Your task to perform on an android device: choose inbox layout in the gmail app Image 0: 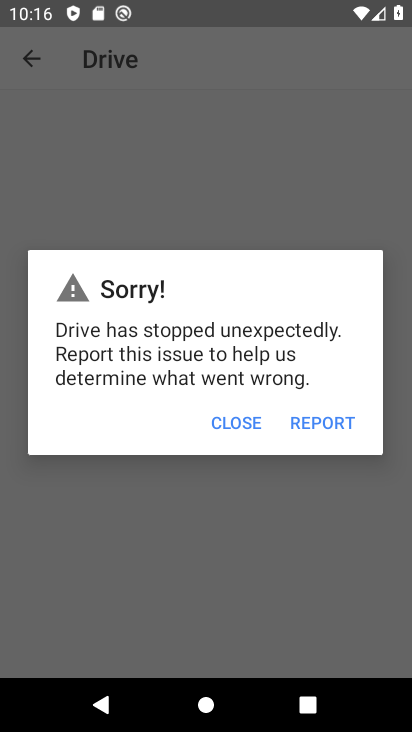
Step 0: press home button
Your task to perform on an android device: choose inbox layout in the gmail app Image 1: 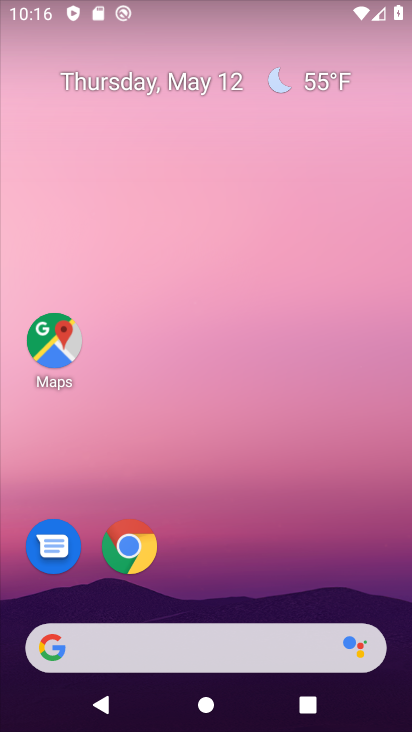
Step 1: drag from (179, 552) to (221, 105)
Your task to perform on an android device: choose inbox layout in the gmail app Image 2: 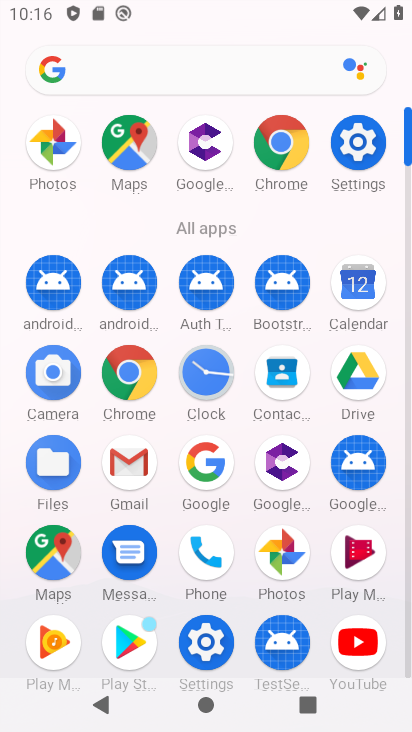
Step 2: click (129, 468)
Your task to perform on an android device: choose inbox layout in the gmail app Image 3: 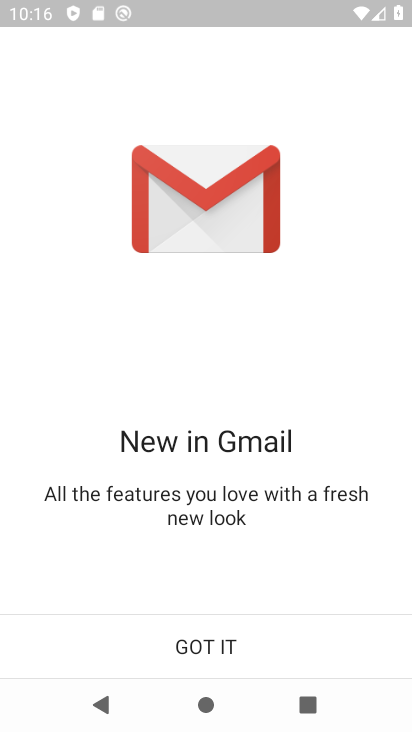
Step 3: click (209, 654)
Your task to perform on an android device: choose inbox layout in the gmail app Image 4: 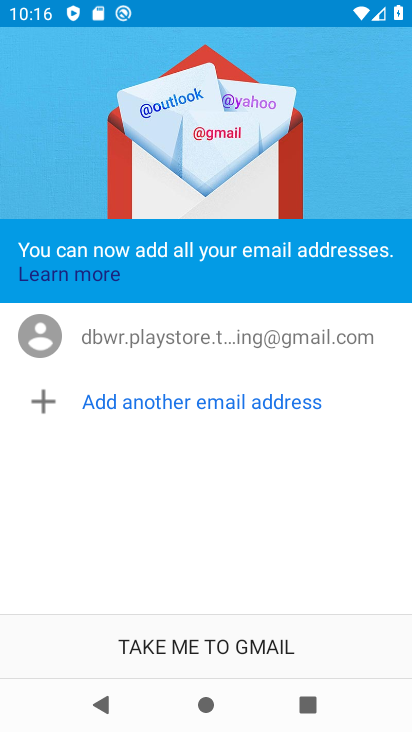
Step 4: click (211, 645)
Your task to perform on an android device: choose inbox layout in the gmail app Image 5: 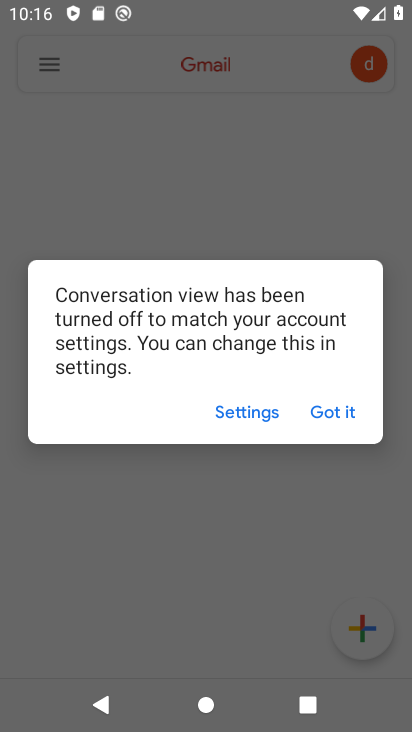
Step 5: click (354, 404)
Your task to perform on an android device: choose inbox layout in the gmail app Image 6: 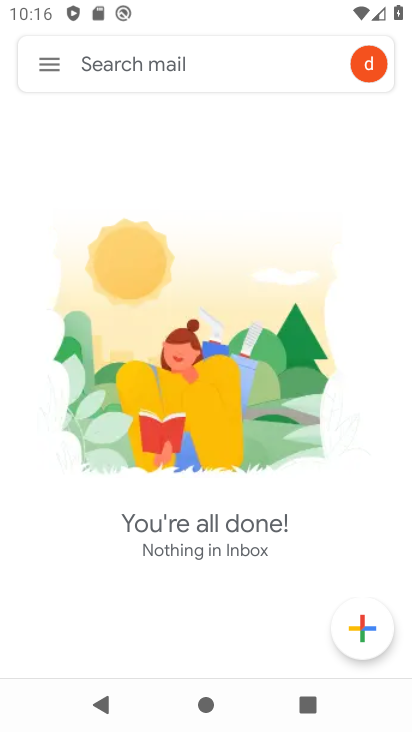
Step 6: click (50, 65)
Your task to perform on an android device: choose inbox layout in the gmail app Image 7: 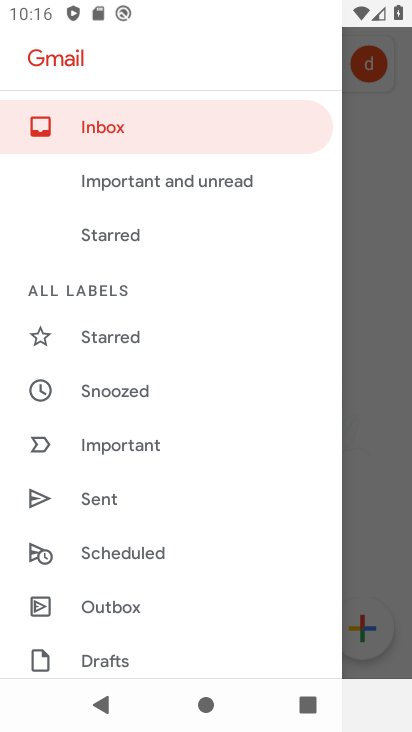
Step 7: drag from (176, 581) to (186, 208)
Your task to perform on an android device: choose inbox layout in the gmail app Image 8: 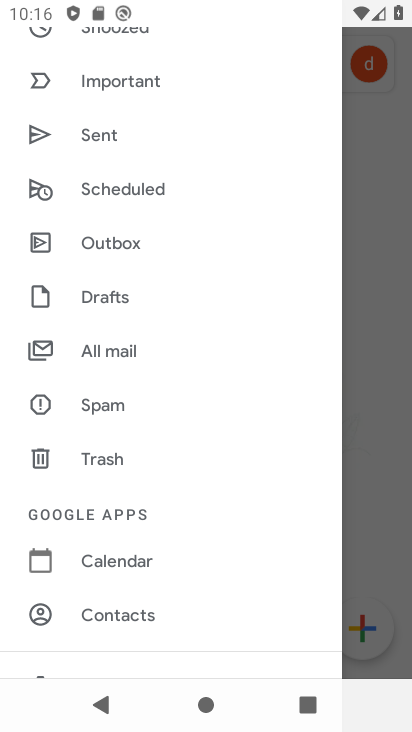
Step 8: drag from (162, 594) to (200, 222)
Your task to perform on an android device: choose inbox layout in the gmail app Image 9: 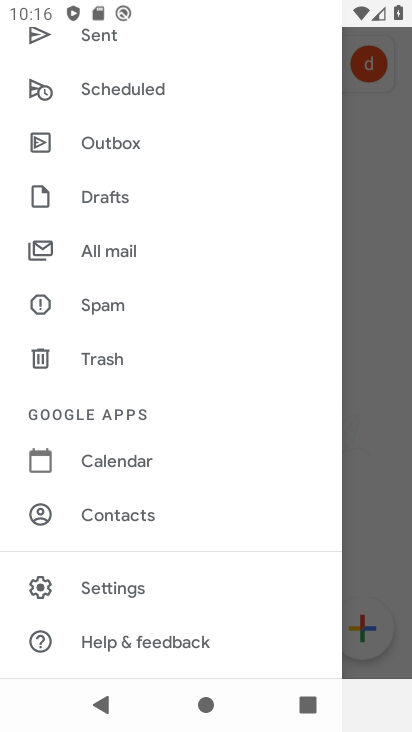
Step 9: click (143, 585)
Your task to perform on an android device: choose inbox layout in the gmail app Image 10: 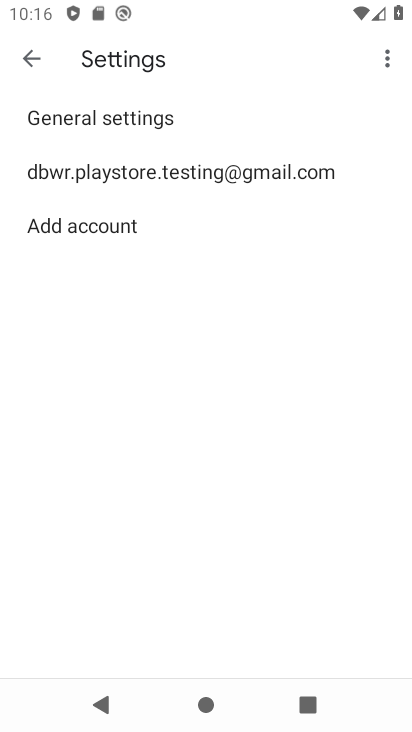
Step 10: click (185, 176)
Your task to perform on an android device: choose inbox layout in the gmail app Image 11: 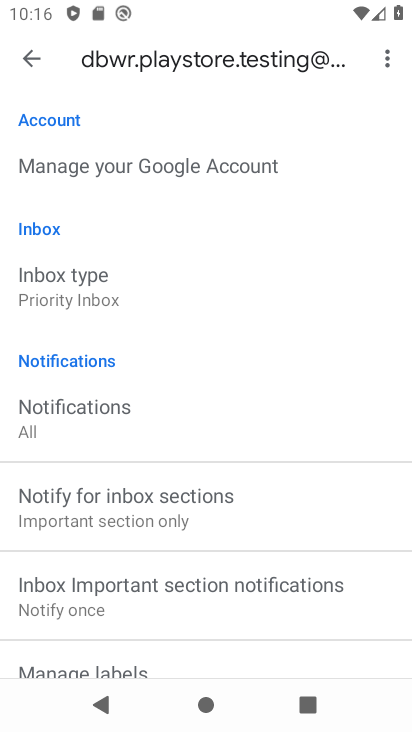
Step 11: click (72, 302)
Your task to perform on an android device: choose inbox layout in the gmail app Image 12: 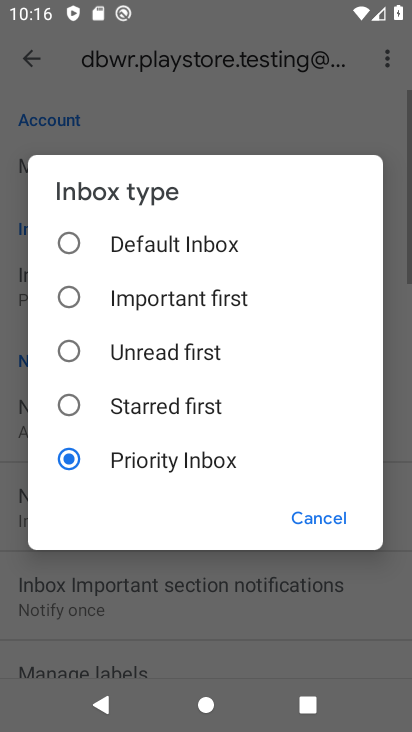
Step 12: click (112, 253)
Your task to perform on an android device: choose inbox layout in the gmail app Image 13: 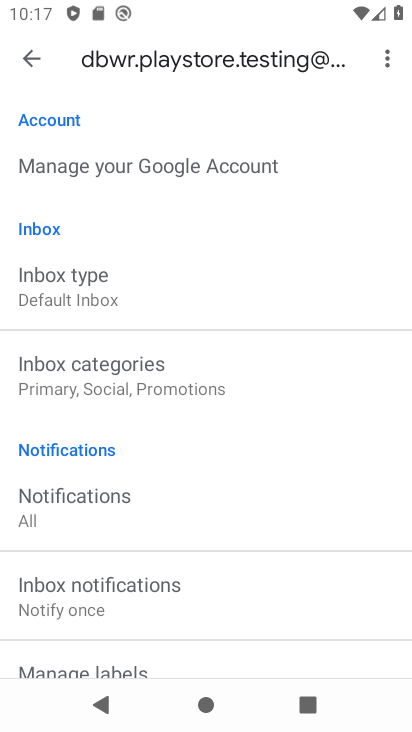
Step 13: task complete